Your task to perform on an android device: check battery use Image 0: 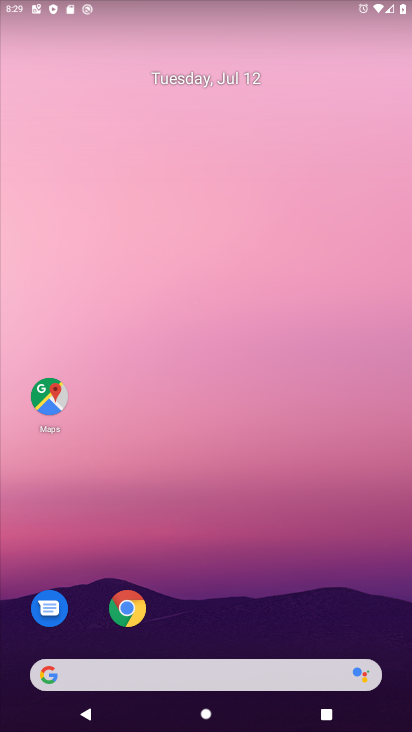
Step 0: drag from (340, 540) to (340, 11)
Your task to perform on an android device: check battery use Image 1: 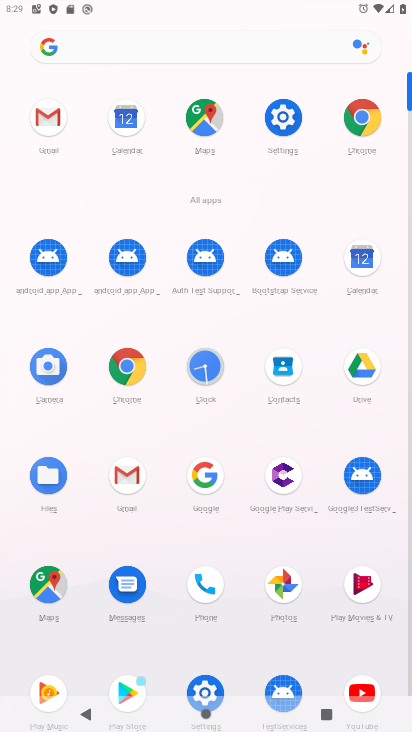
Step 1: click (282, 109)
Your task to perform on an android device: check battery use Image 2: 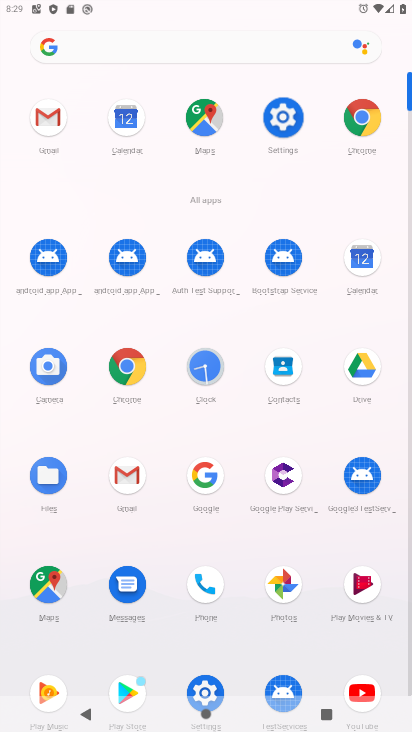
Step 2: click (282, 109)
Your task to perform on an android device: check battery use Image 3: 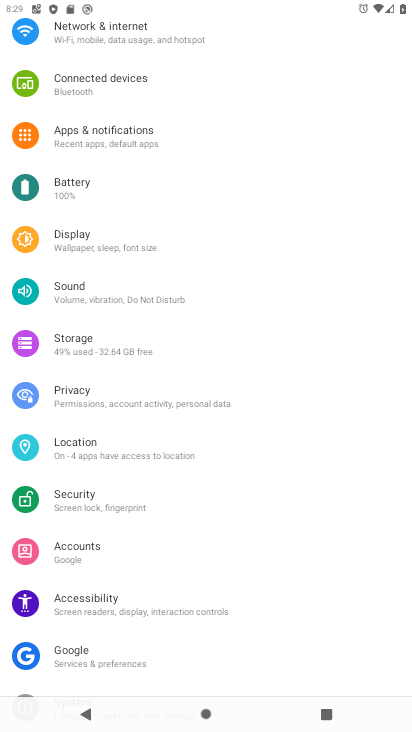
Step 3: click (115, 175)
Your task to perform on an android device: check battery use Image 4: 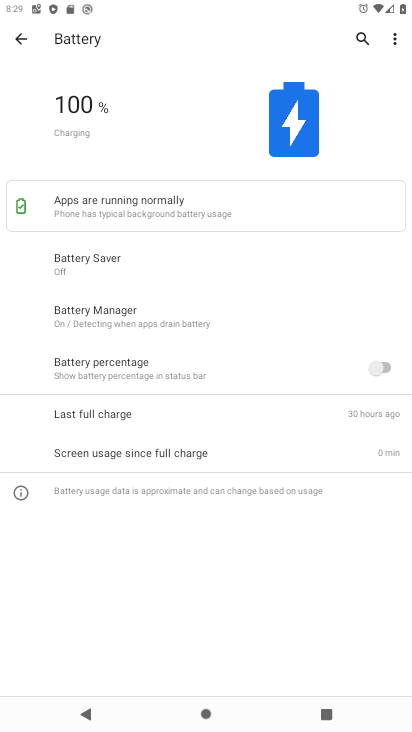
Step 4: click (397, 37)
Your task to perform on an android device: check battery use Image 5: 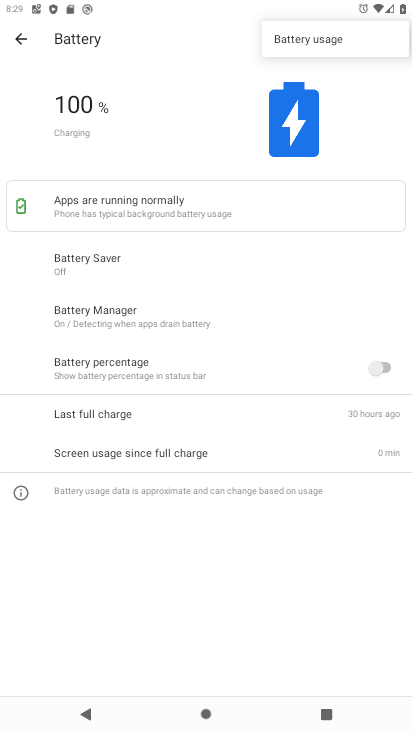
Step 5: click (344, 33)
Your task to perform on an android device: check battery use Image 6: 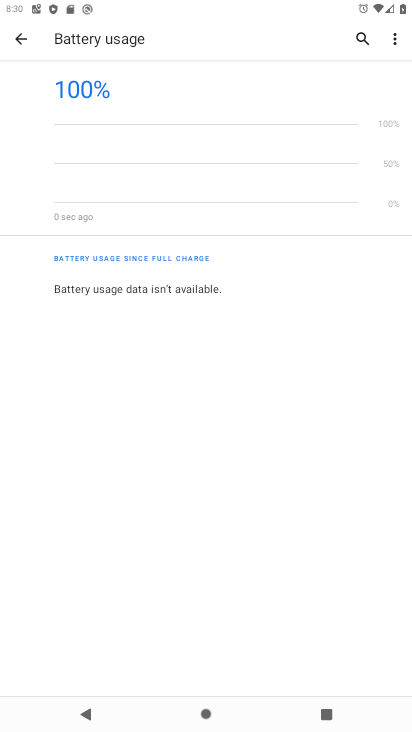
Step 6: task complete